Your task to perform on an android device: uninstall "Google Play Games" Image 0: 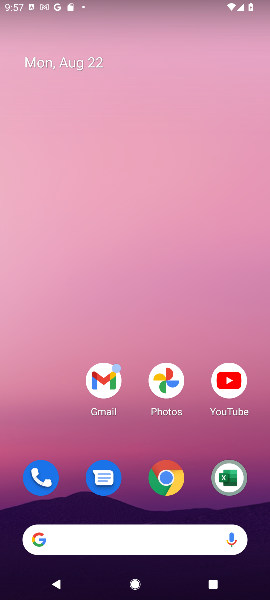
Step 0: drag from (134, 508) to (130, 91)
Your task to perform on an android device: uninstall "Google Play Games" Image 1: 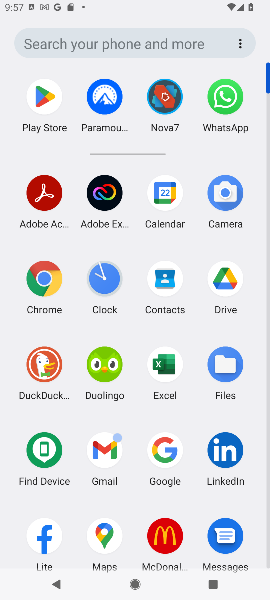
Step 1: click (49, 104)
Your task to perform on an android device: uninstall "Google Play Games" Image 2: 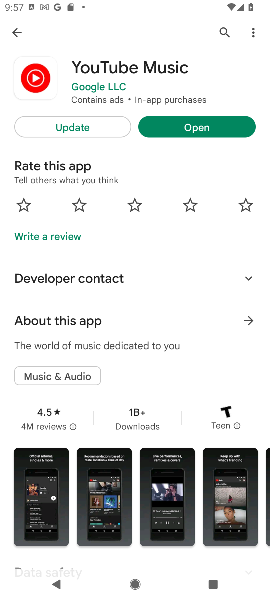
Step 2: click (215, 47)
Your task to perform on an android device: uninstall "Google Play Games" Image 3: 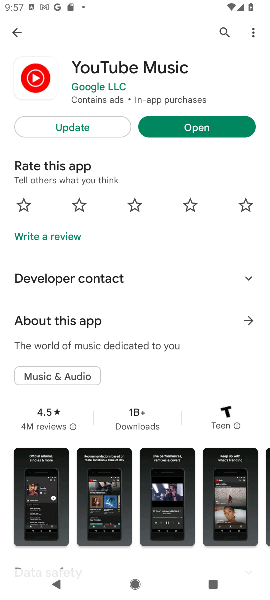
Step 3: click (227, 40)
Your task to perform on an android device: uninstall "Google Play Games" Image 4: 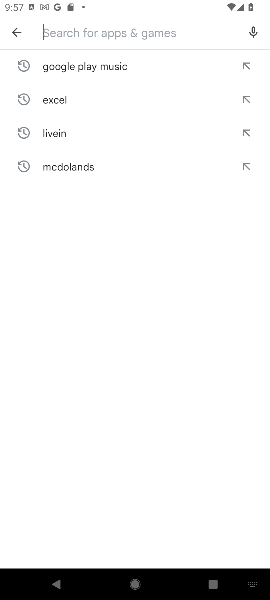
Step 4: type "goole play game"
Your task to perform on an android device: uninstall "Google Play Games" Image 5: 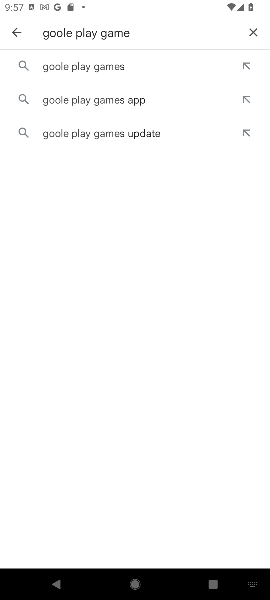
Step 5: click (118, 73)
Your task to perform on an android device: uninstall "Google Play Games" Image 6: 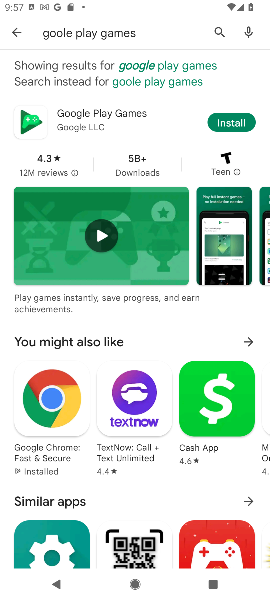
Step 6: click (224, 122)
Your task to perform on an android device: uninstall "Google Play Games" Image 7: 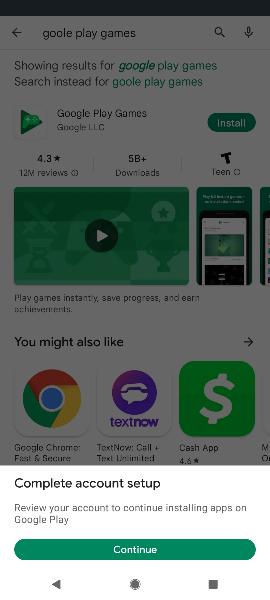
Step 7: click (57, 539)
Your task to perform on an android device: uninstall "Google Play Games" Image 8: 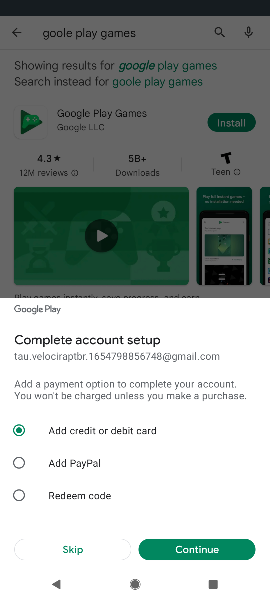
Step 8: click (64, 543)
Your task to perform on an android device: uninstall "Google Play Games" Image 9: 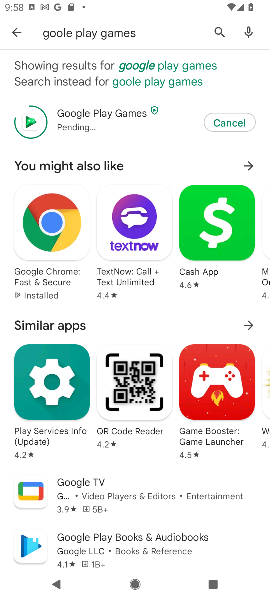
Step 9: task complete